Your task to perform on an android device: Open ESPN.com Image 0: 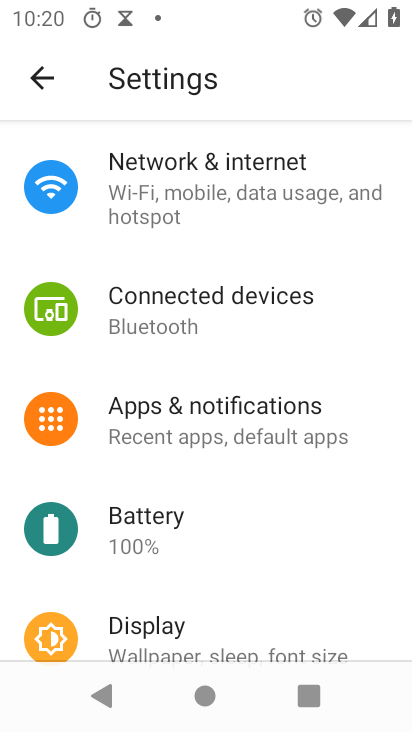
Step 0: press home button
Your task to perform on an android device: Open ESPN.com Image 1: 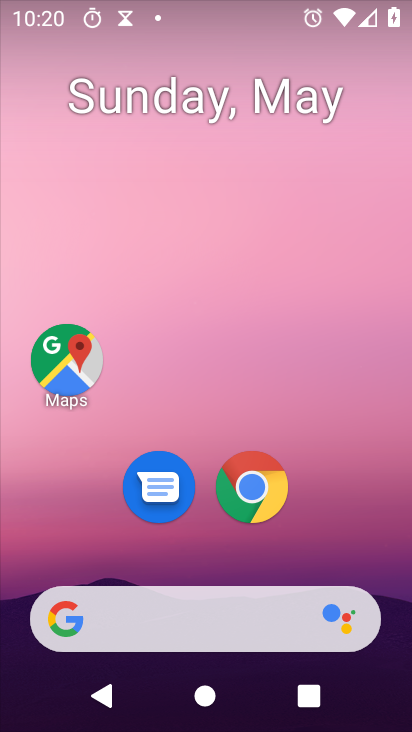
Step 1: click (289, 467)
Your task to perform on an android device: Open ESPN.com Image 2: 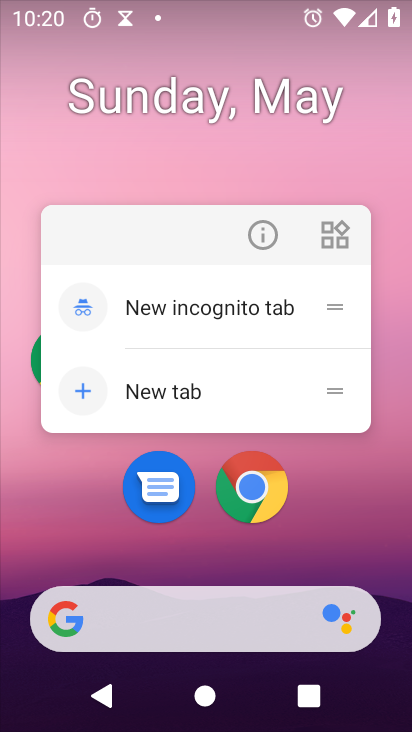
Step 2: click (289, 466)
Your task to perform on an android device: Open ESPN.com Image 3: 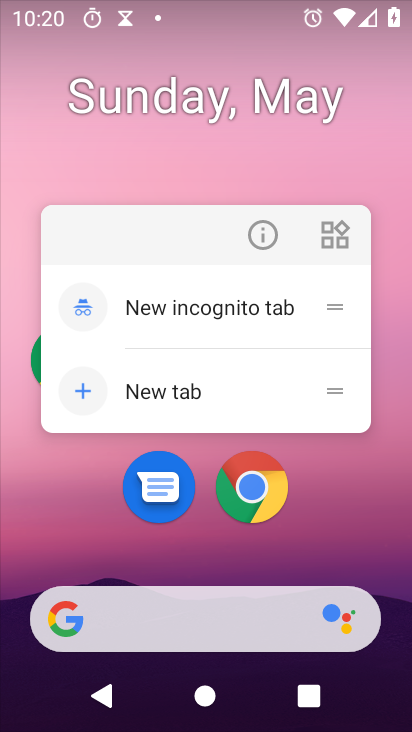
Step 3: click (270, 489)
Your task to perform on an android device: Open ESPN.com Image 4: 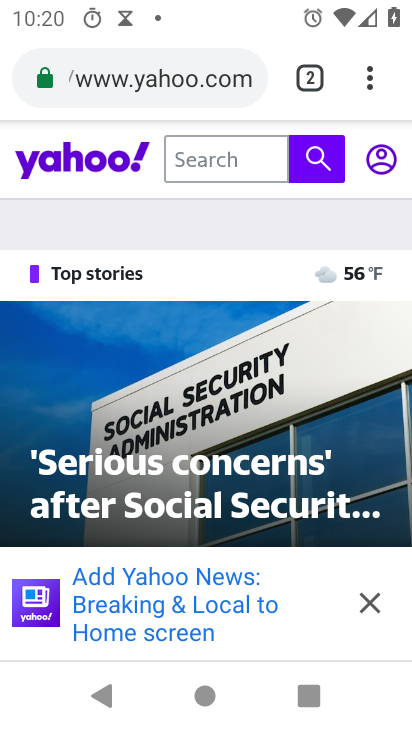
Step 4: click (202, 82)
Your task to perform on an android device: Open ESPN.com Image 5: 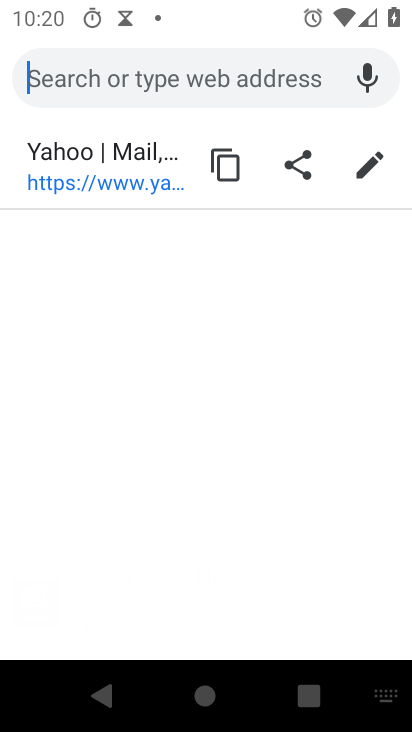
Step 5: type "espn"
Your task to perform on an android device: Open ESPN.com Image 6: 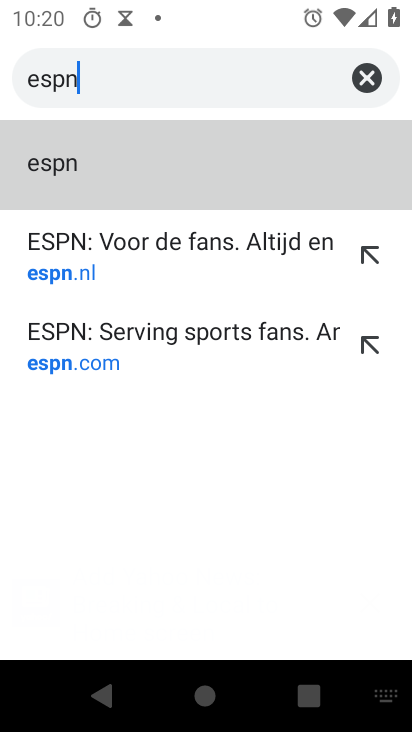
Step 6: click (120, 255)
Your task to perform on an android device: Open ESPN.com Image 7: 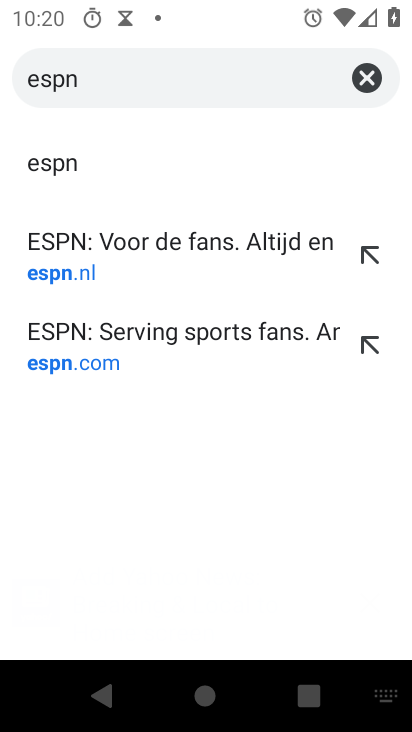
Step 7: click (74, 159)
Your task to perform on an android device: Open ESPN.com Image 8: 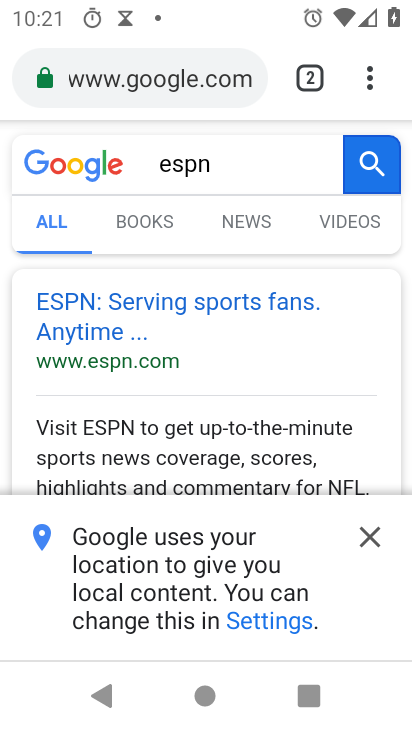
Step 8: click (112, 328)
Your task to perform on an android device: Open ESPN.com Image 9: 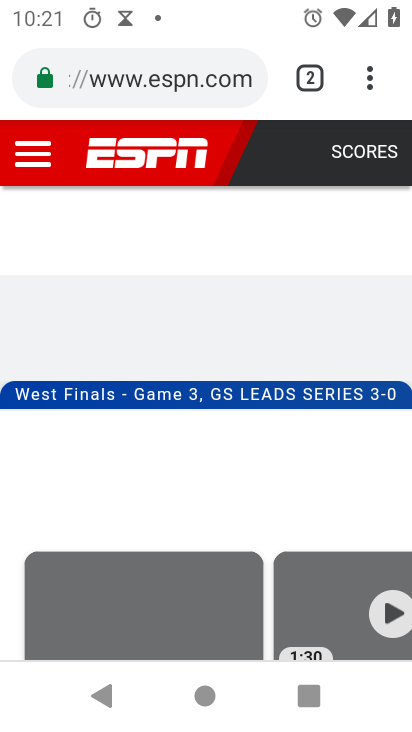
Step 9: task complete